Your task to perform on an android device: What's the weather going to be tomorrow? Image 0: 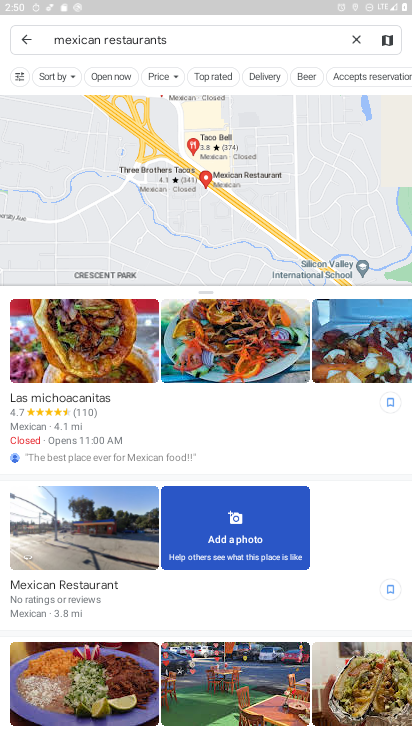
Step 0: press home button
Your task to perform on an android device: What's the weather going to be tomorrow? Image 1: 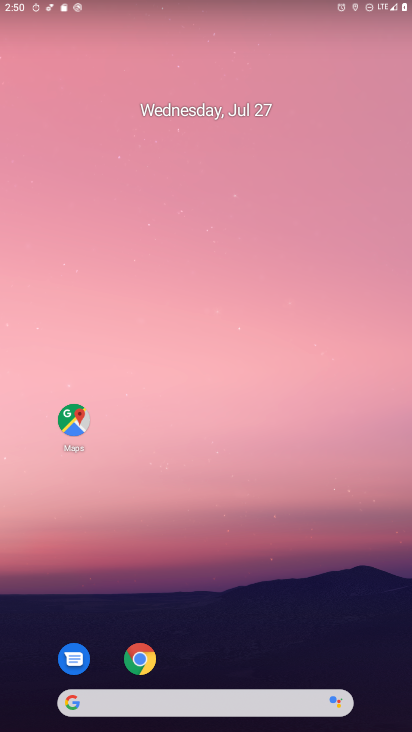
Step 1: drag from (323, 636) to (295, 80)
Your task to perform on an android device: What's the weather going to be tomorrow? Image 2: 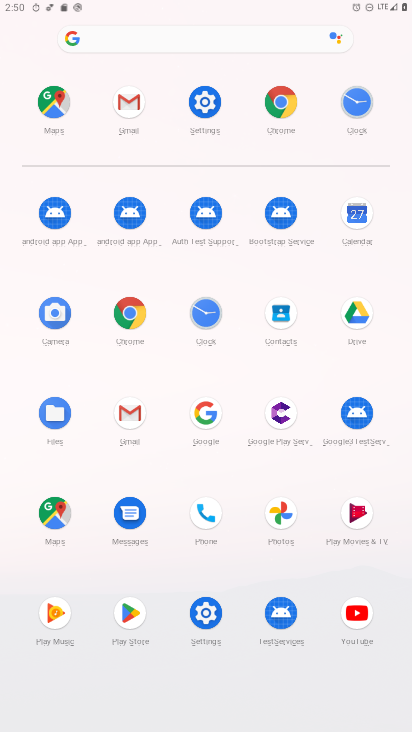
Step 2: click (279, 105)
Your task to perform on an android device: What's the weather going to be tomorrow? Image 3: 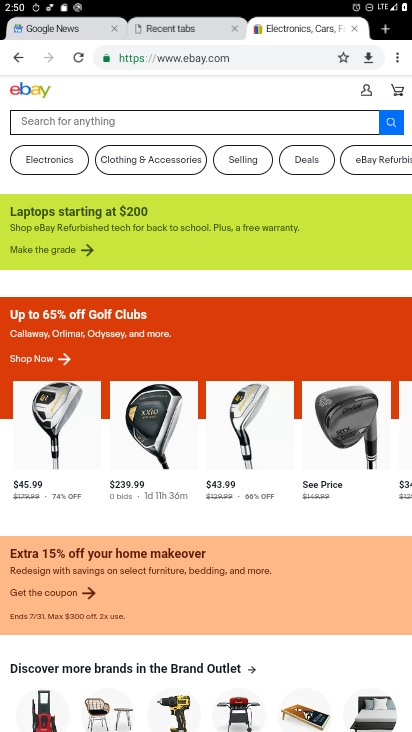
Step 3: click (199, 65)
Your task to perform on an android device: What's the weather going to be tomorrow? Image 4: 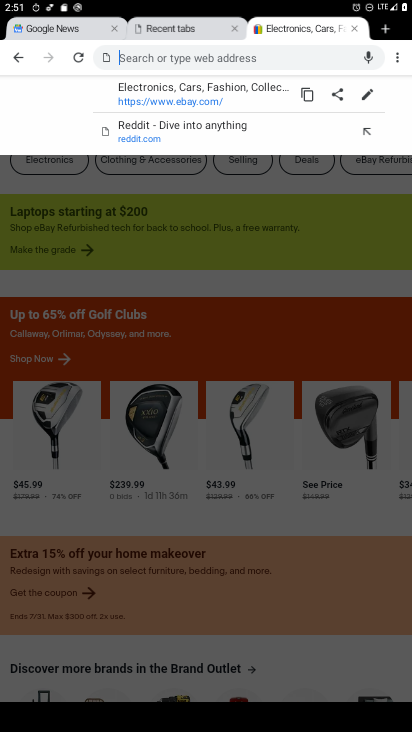
Step 4: type "weather"
Your task to perform on an android device: What's the weather going to be tomorrow? Image 5: 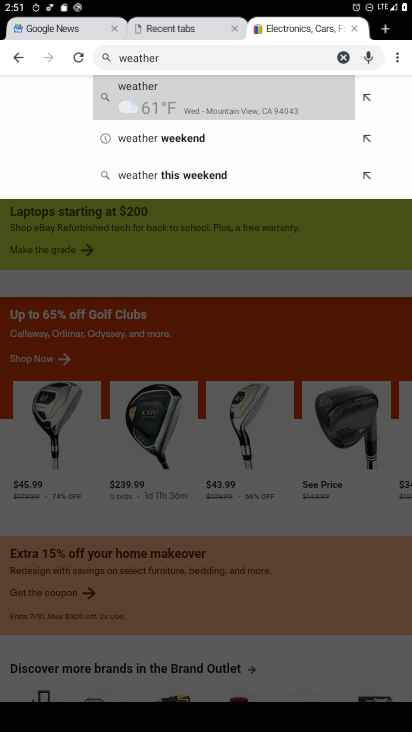
Step 5: click (235, 102)
Your task to perform on an android device: What's the weather going to be tomorrow? Image 6: 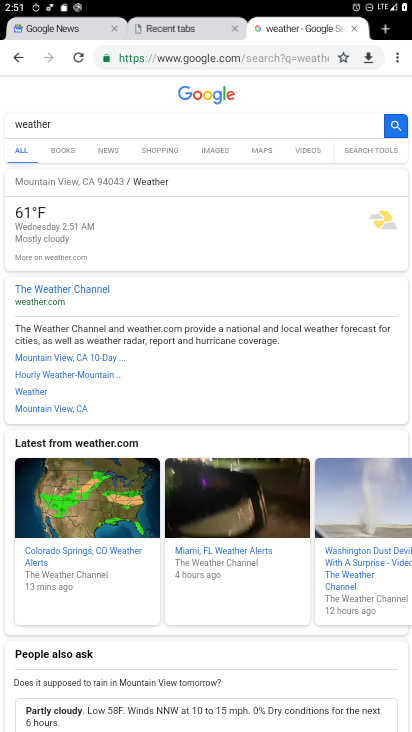
Step 6: click (263, 134)
Your task to perform on an android device: What's the weather going to be tomorrow? Image 7: 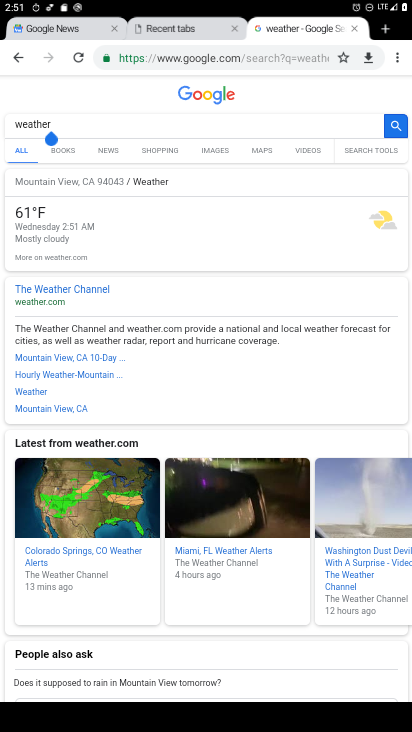
Step 7: type " tommorow"
Your task to perform on an android device: What's the weather going to be tomorrow? Image 8: 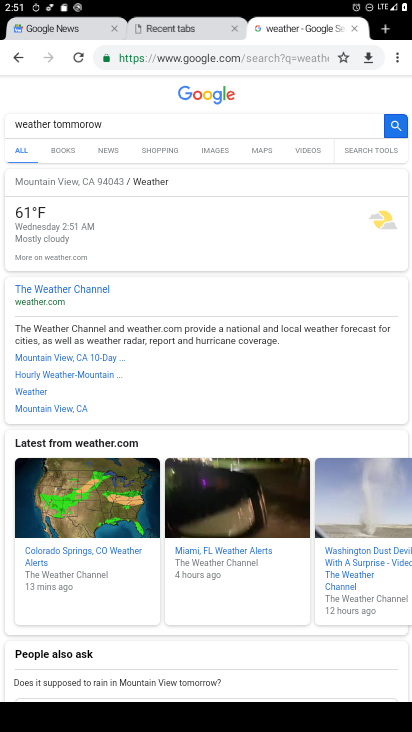
Step 8: click (395, 125)
Your task to perform on an android device: What's the weather going to be tomorrow? Image 9: 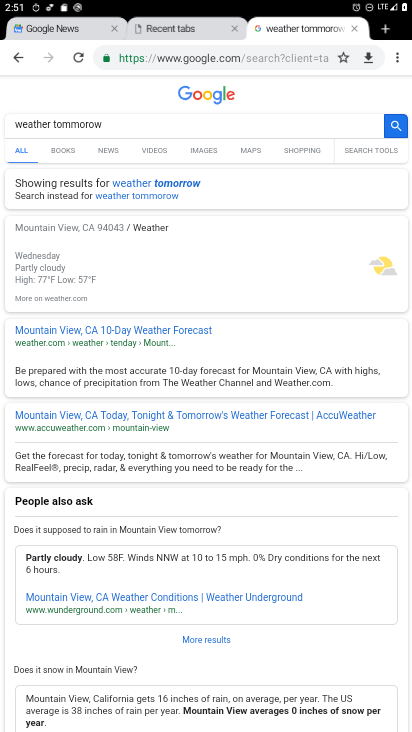
Step 9: task complete